Your task to perform on an android device: Open Amazon Image 0: 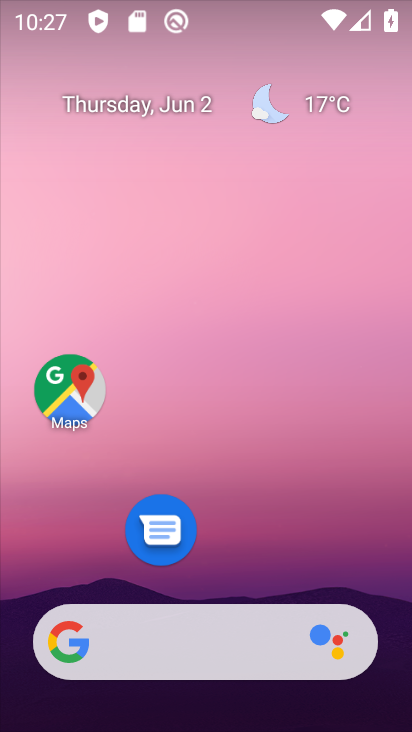
Step 0: click (200, 19)
Your task to perform on an android device: Open Amazon Image 1: 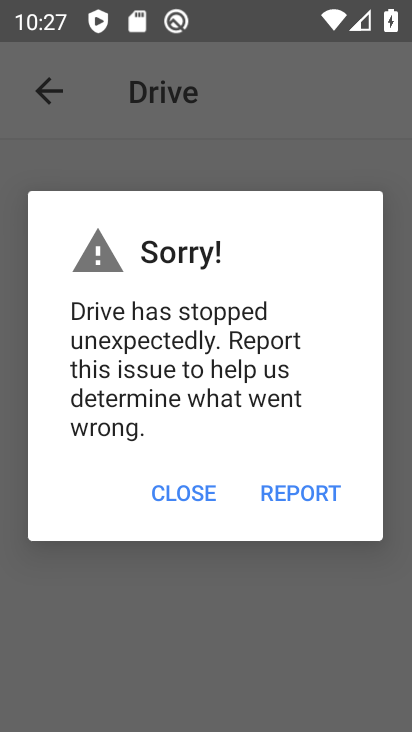
Step 1: click (166, 485)
Your task to perform on an android device: Open Amazon Image 2: 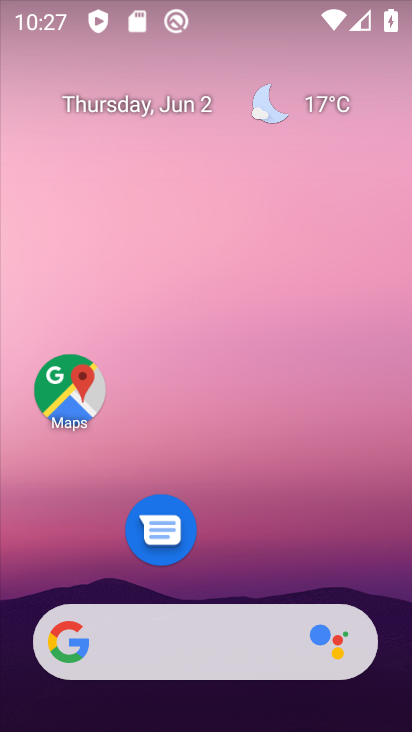
Step 2: drag from (279, 685) to (154, 53)
Your task to perform on an android device: Open Amazon Image 3: 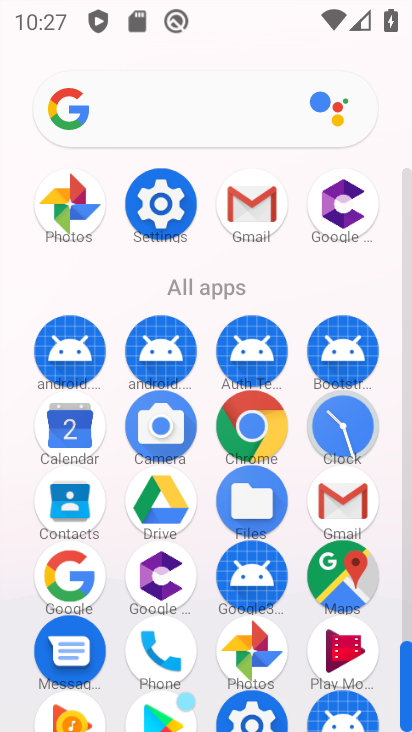
Step 3: drag from (211, 412) to (167, 17)
Your task to perform on an android device: Open Amazon Image 4: 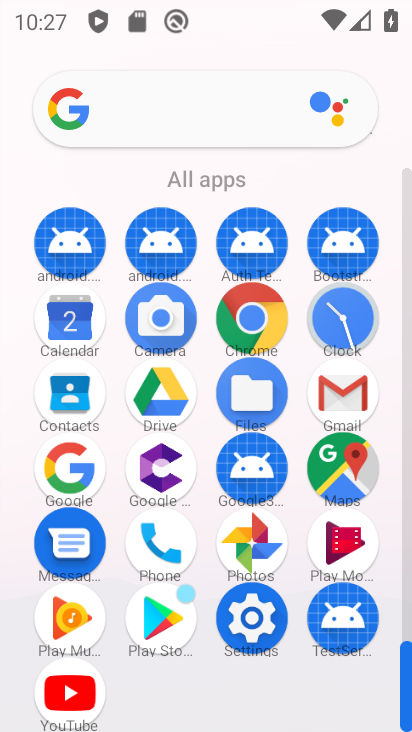
Step 4: click (242, 319)
Your task to perform on an android device: Open Amazon Image 5: 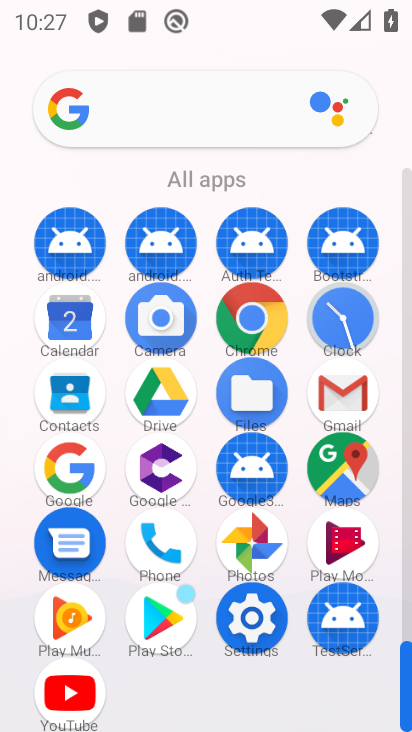
Step 5: click (245, 314)
Your task to perform on an android device: Open Amazon Image 6: 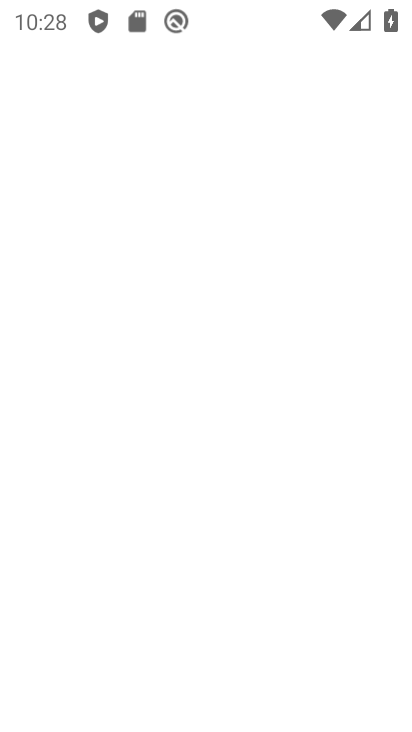
Step 6: click (247, 310)
Your task to perform on an android device: Open Amazon Image 7: 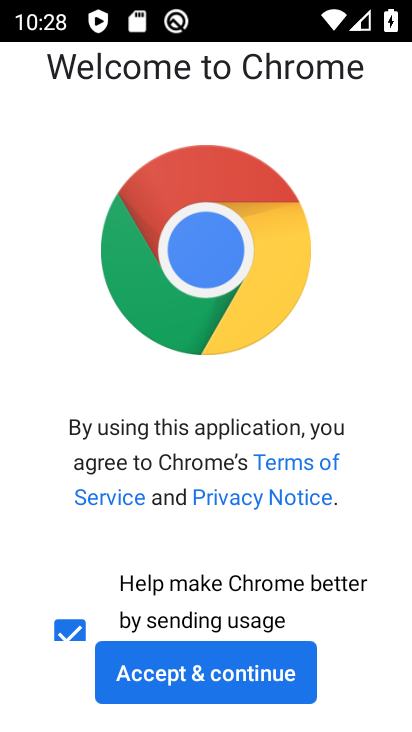
Step 7: click (226, 672)
Your task to perform on an android device: Open Amazon Image 8: 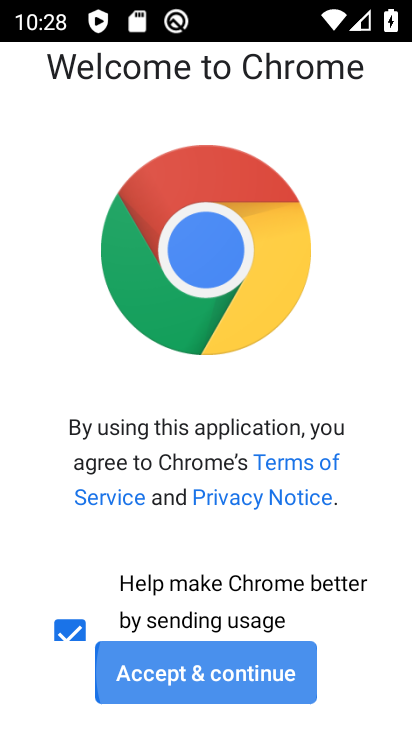
Step 8: click (222, 668)
Your task to perform on an android device: Open Amazon Image 9: 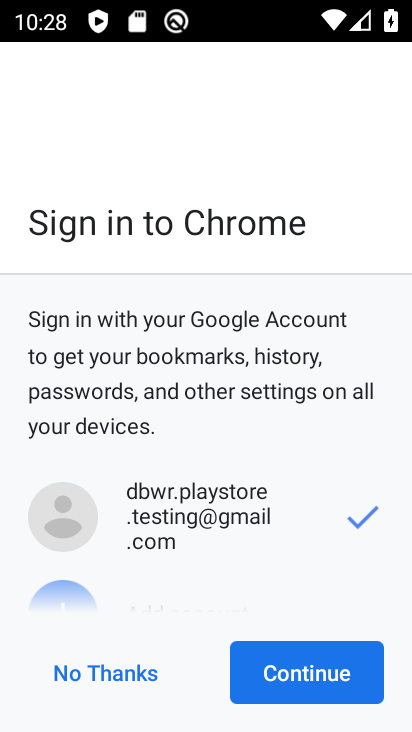
Step 9: click (228, 666)
Your task to perform on an android device: Open Amazon Image 10: 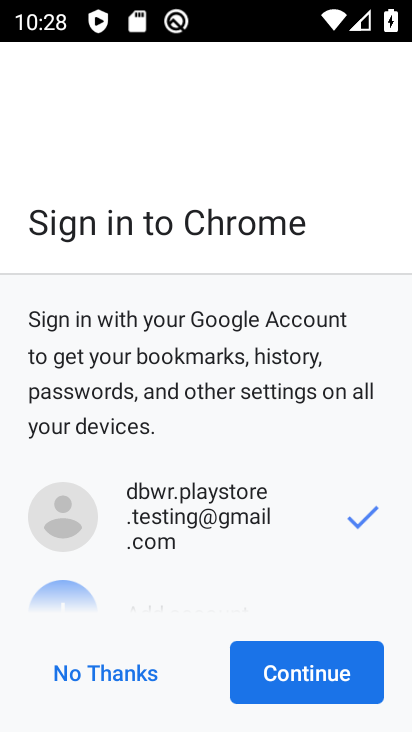
Step 10: click (290, 672)
Your task to perform on an android device: Open Amazon Image 11: 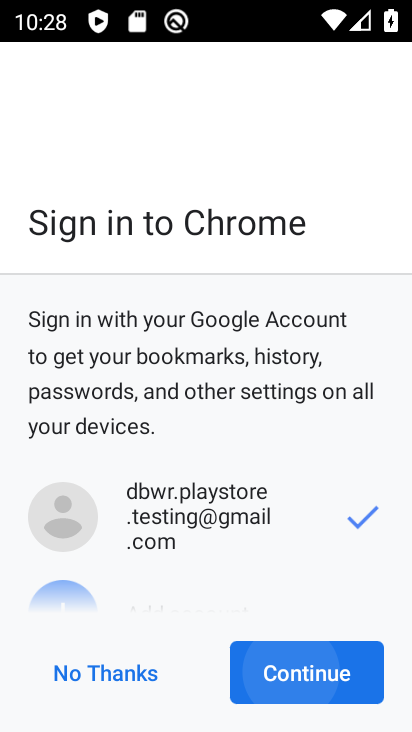
Step 11: click (292, 667)
Your task to perform on an android device: Open Amazon Image 12: 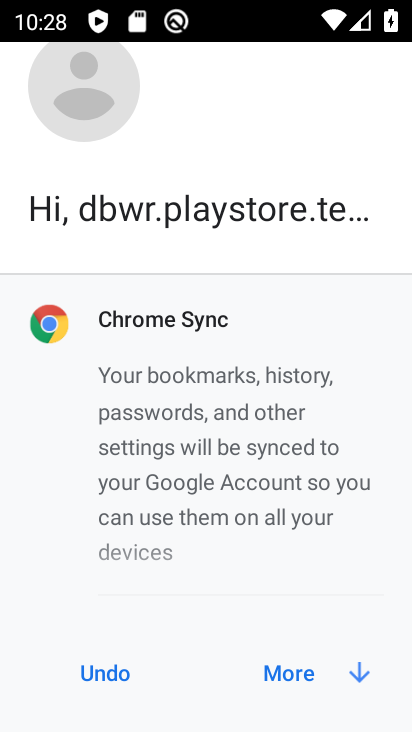
Step 12: click (297, 662)
Your task to perform on an android device: Open Amazon Image 13: 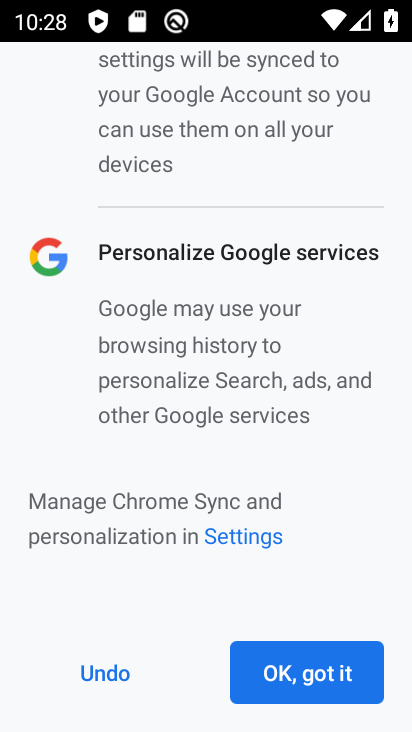
Step 13: click (306, 675)
Your task to perform on an android device: Open Amazon Image 14: 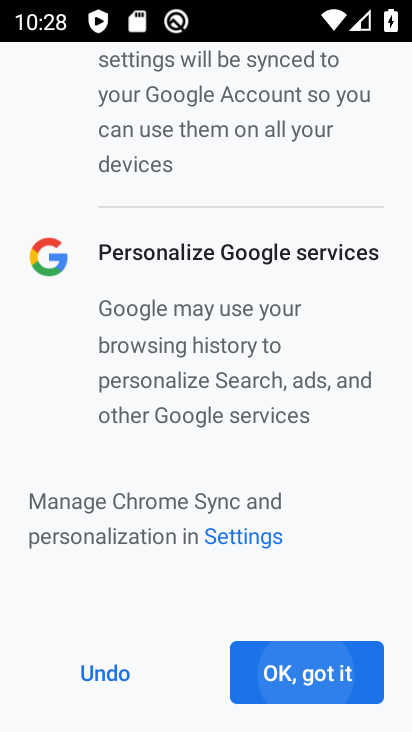
Step 14: click (307, 675)
Your task to perform on an android device: Open Amazon Image 15: 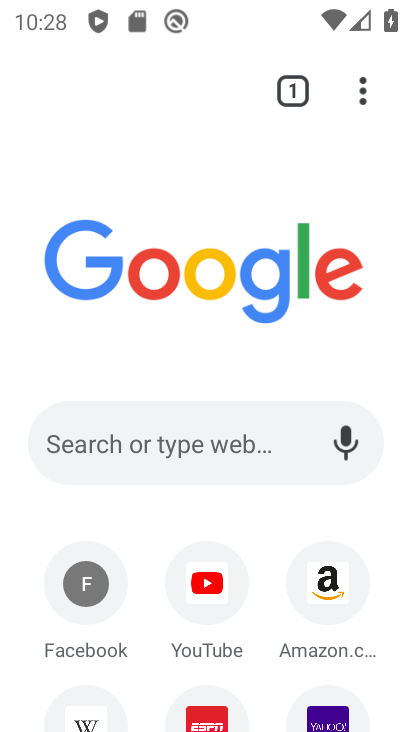
Step 15: click (317, 590)
Your task to perform on an android device: Open Amazon Image 16: 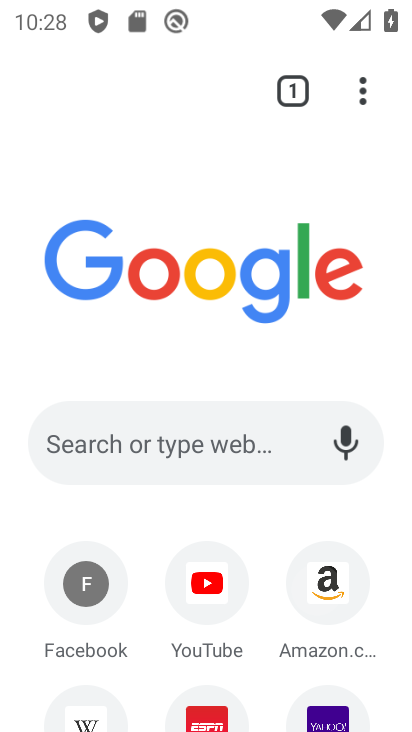
Step 16: click (316, 585)
Your task to perform on an android device: Open Amazon Image 17: 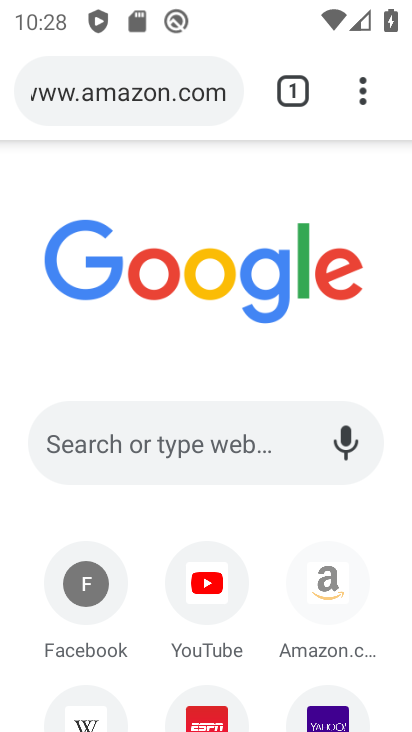
Step 17: click (316, 580)
Your task to perform on an android device: Open Amazon Image 18: 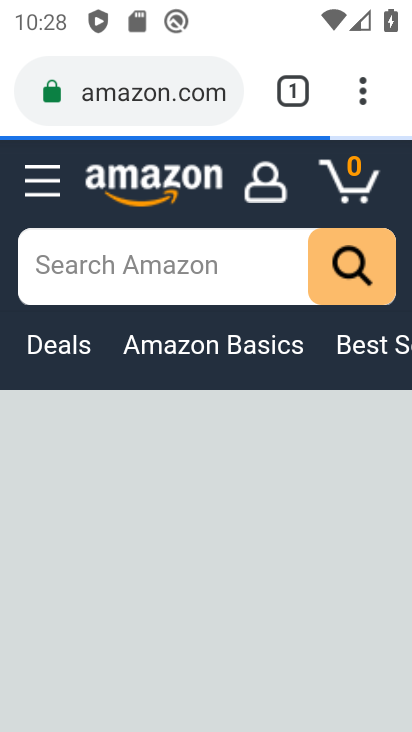
Step 18: task complete